Your task to perform on an android device: toggle pop-ups in chrome Image 0: 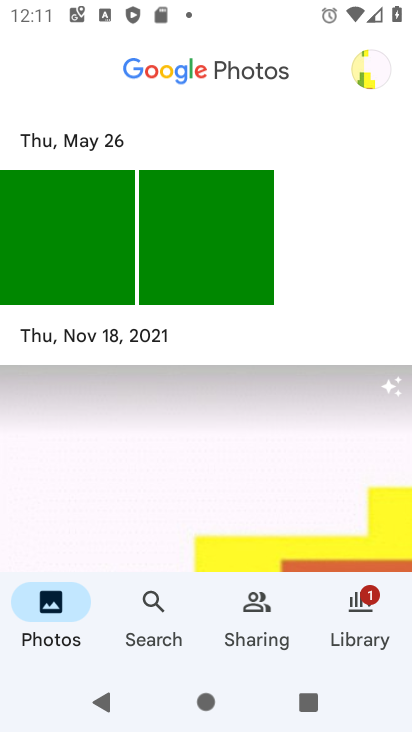
Step 0: press home button
Your task to perform on an android device: toggle pop-ups in chrome Image 1: 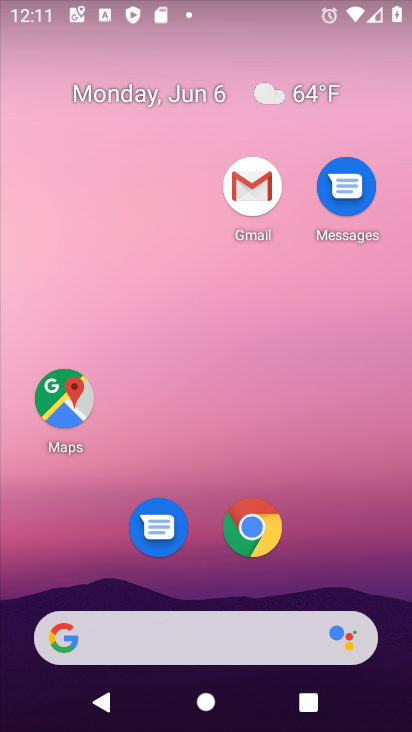
Step 1: click (256, 528)
Your task to perform on an android device: toggle pop-ups in chrome Image 2: 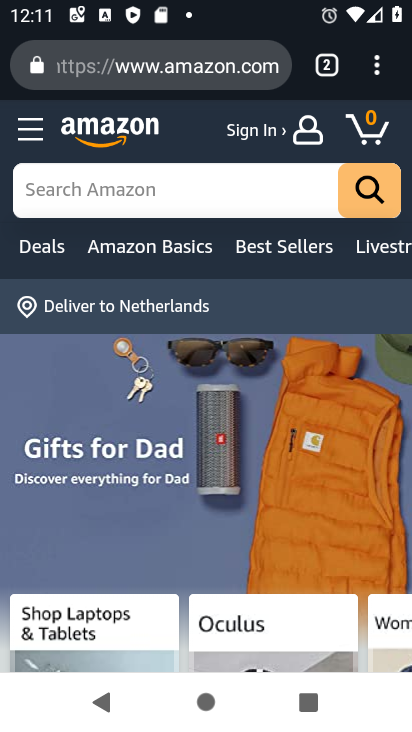
Step 2: click (383, 57)
Your task to perform on an android device: toggle pop-ups in chrome Image 3: 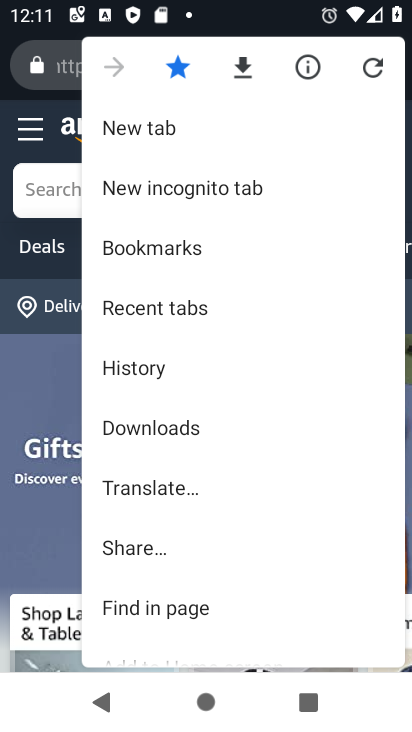
Step 3: drag from (195, 600) to (179, 230)
Your task to perform on an android device: toggle pop-ups in chrome Image 4: 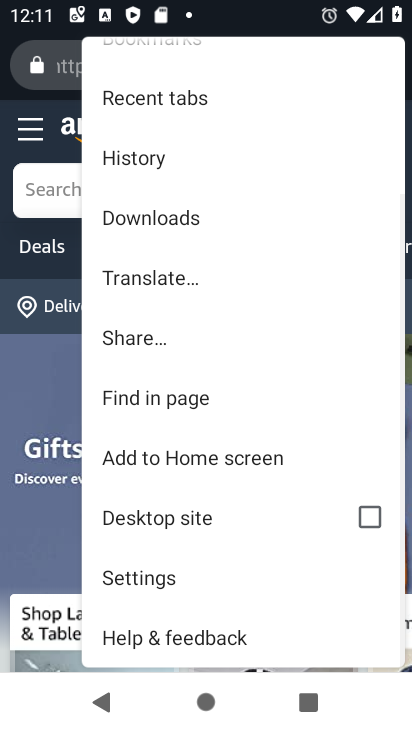
Step 4: click (164, 582)
Your task to perform on an android device: toggle pop-ups in chrome Image 5: 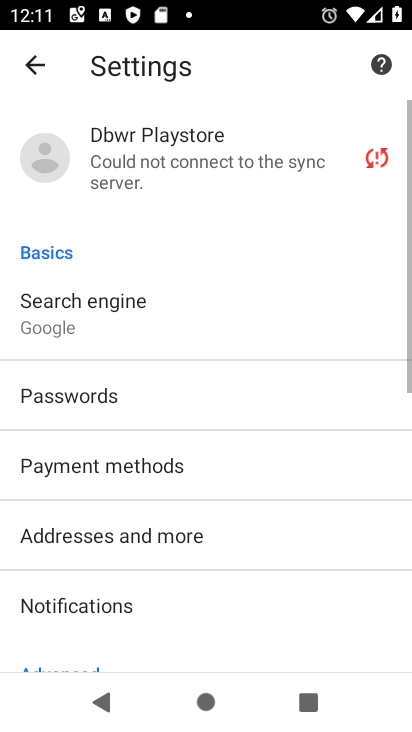
Step 5: drag from (244, 535) to (219, 33)
Your task to perform on an android device: toggle pop-ups in chrome Image 6: 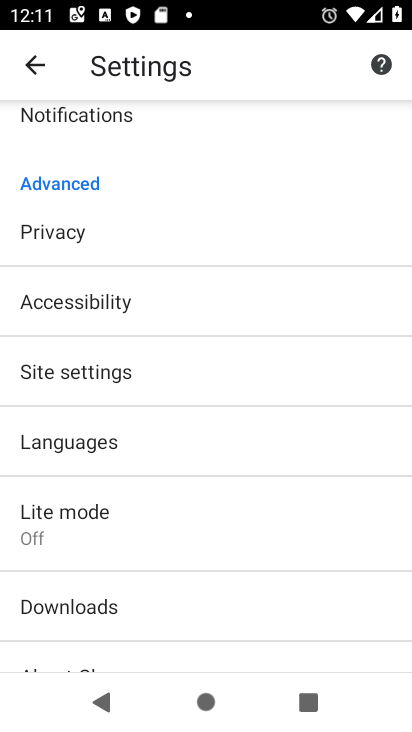
Step 6: click (89, 375)
Your task to perform on an android device: toggle pop-ups in chrome Image 7: 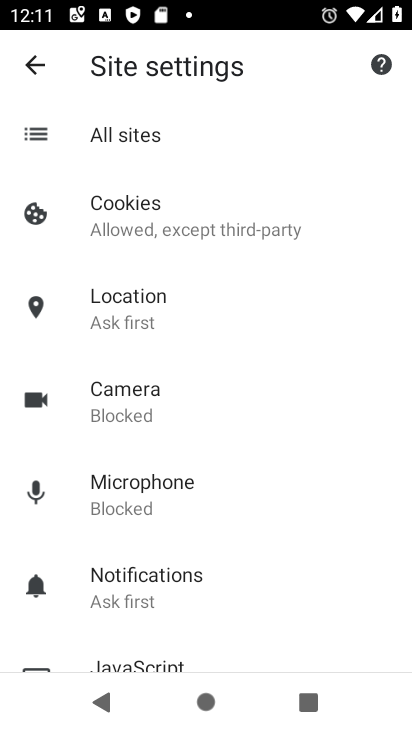
Step 7: drag from (265, 550) to (217, 175)
Your task to perform on an android device: toggle pop-ups in chrome Image 8: 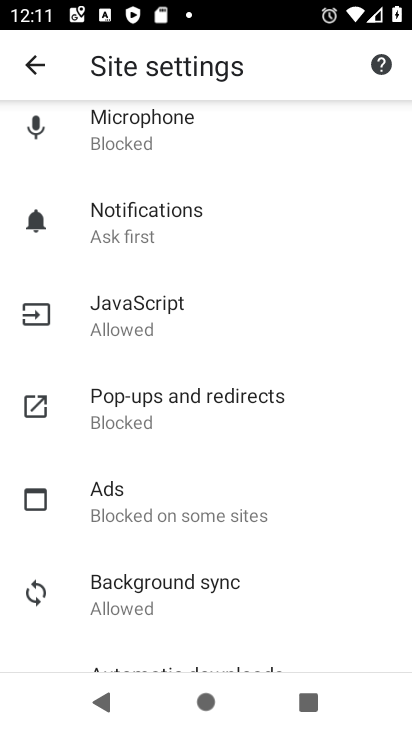
Step 8: click (221, 387)
Your task to perform on an android device: toggle pop-ups in chrome Image 9: 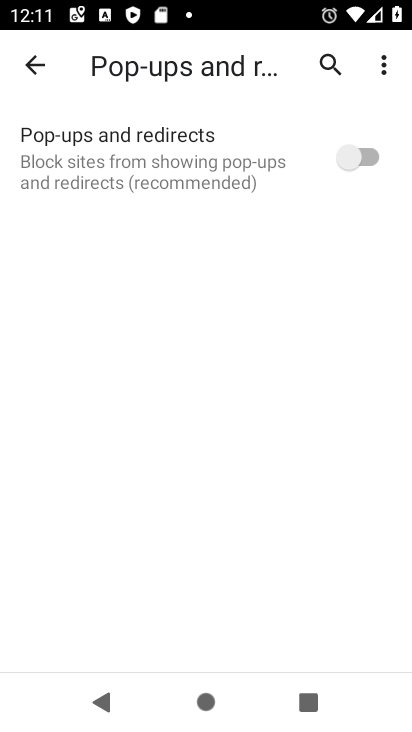
Step 9: click (374, 143)
Your task to perform on an android device: toggle pop-ups in chrome Image 10: 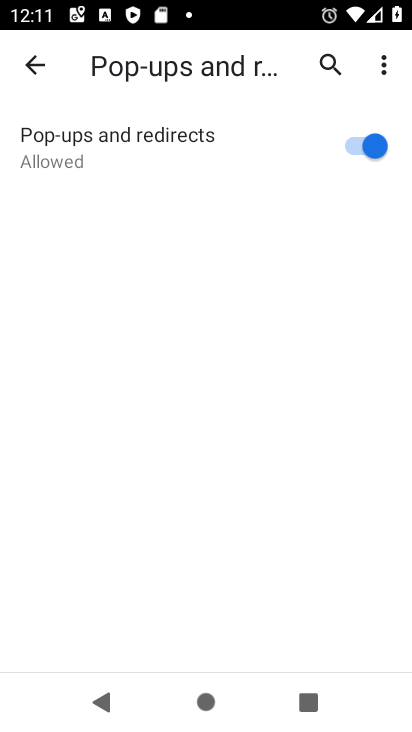
Step 10: task complete